Your task to perform on an android device: Go to eBay Image 0: 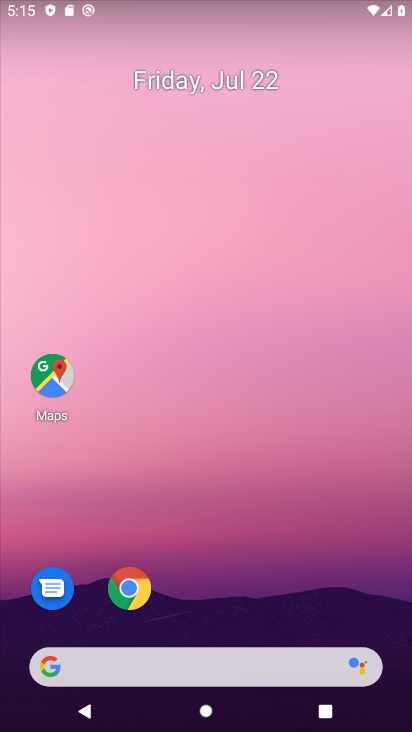
Step 0: drag from (237, 573) to (232, 215)
Your task to perform on an android device: Go to eBay Image 1: 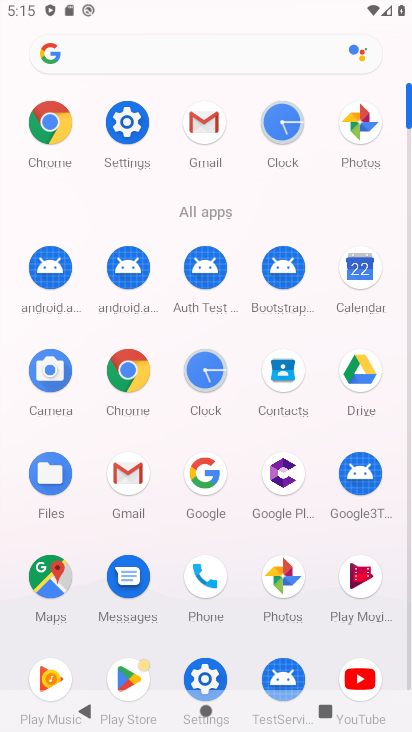
Step 1: click (124, 366)
Your task to perform on an android device: Go to eBay Image 2: 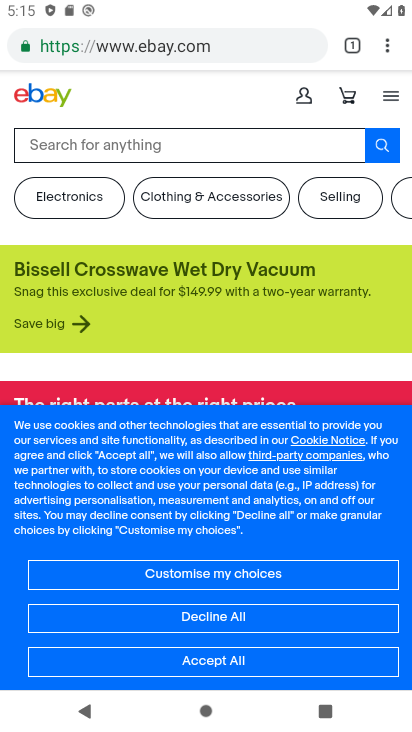
Step 2: task complete